Your task to perform on an android device: open app "Messages" (install if not already installed) Image 0: 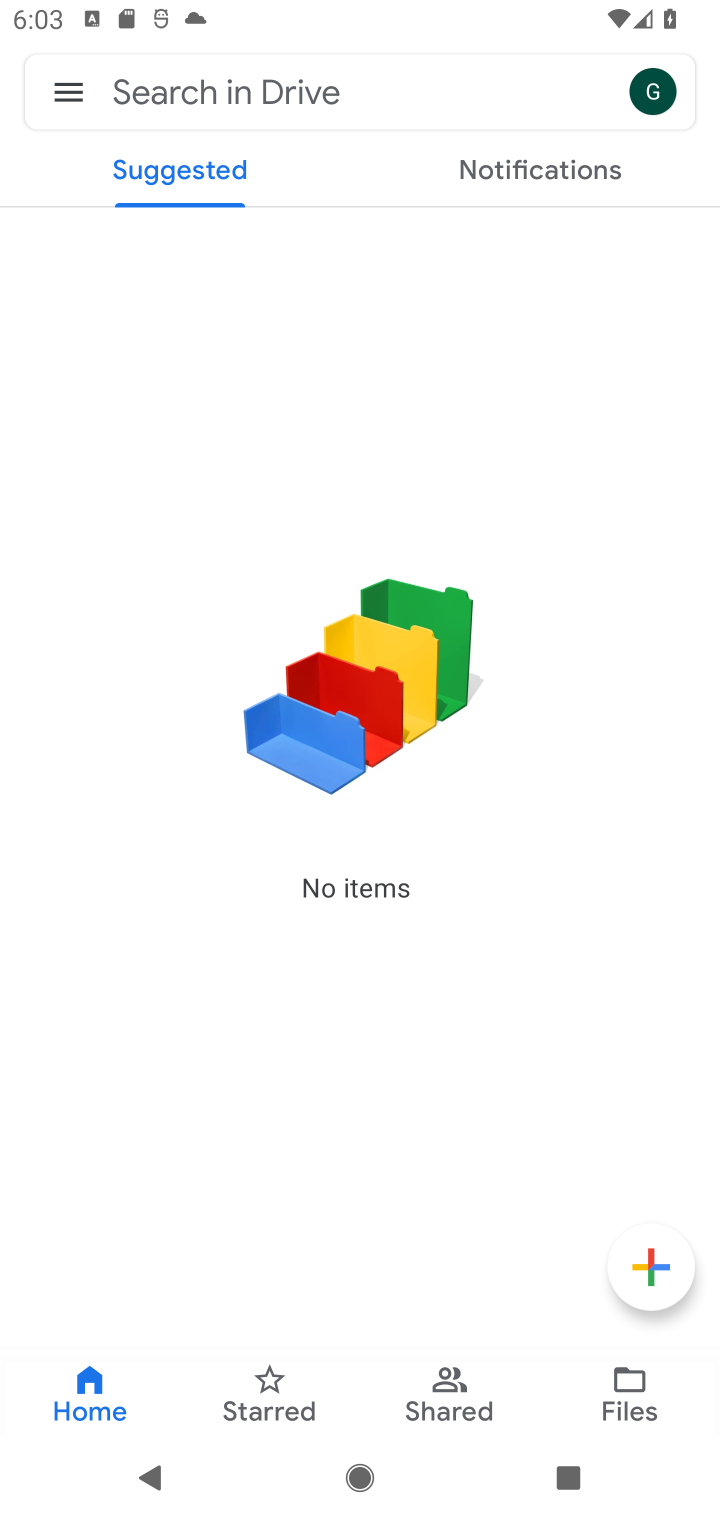
Step 0: press home button
Your task to perform on an android device: open app "Messages" (install if not already installed) Image 1: 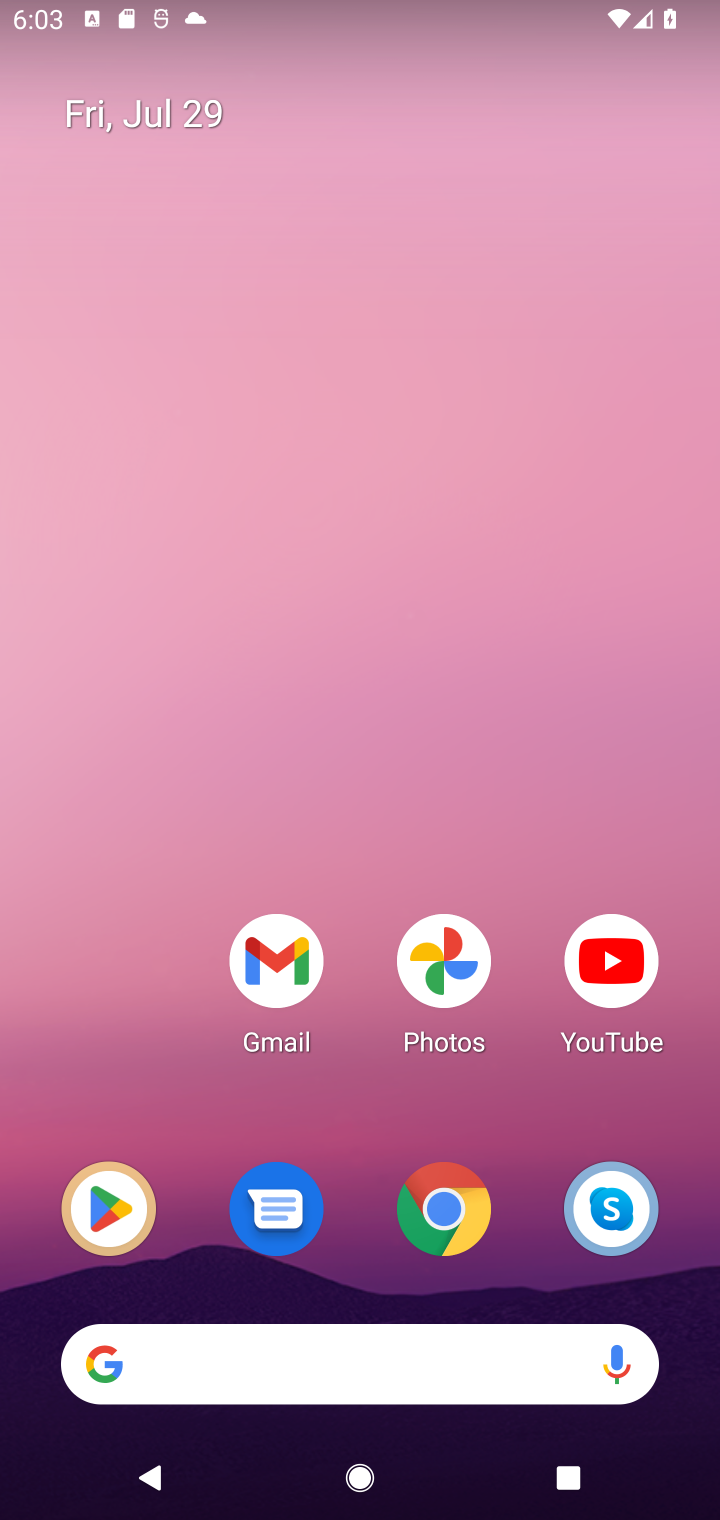
Step 1: click (106, 1209)
Your task to perform on an android device: open app "Messages" (install if not already installed) Image 2: 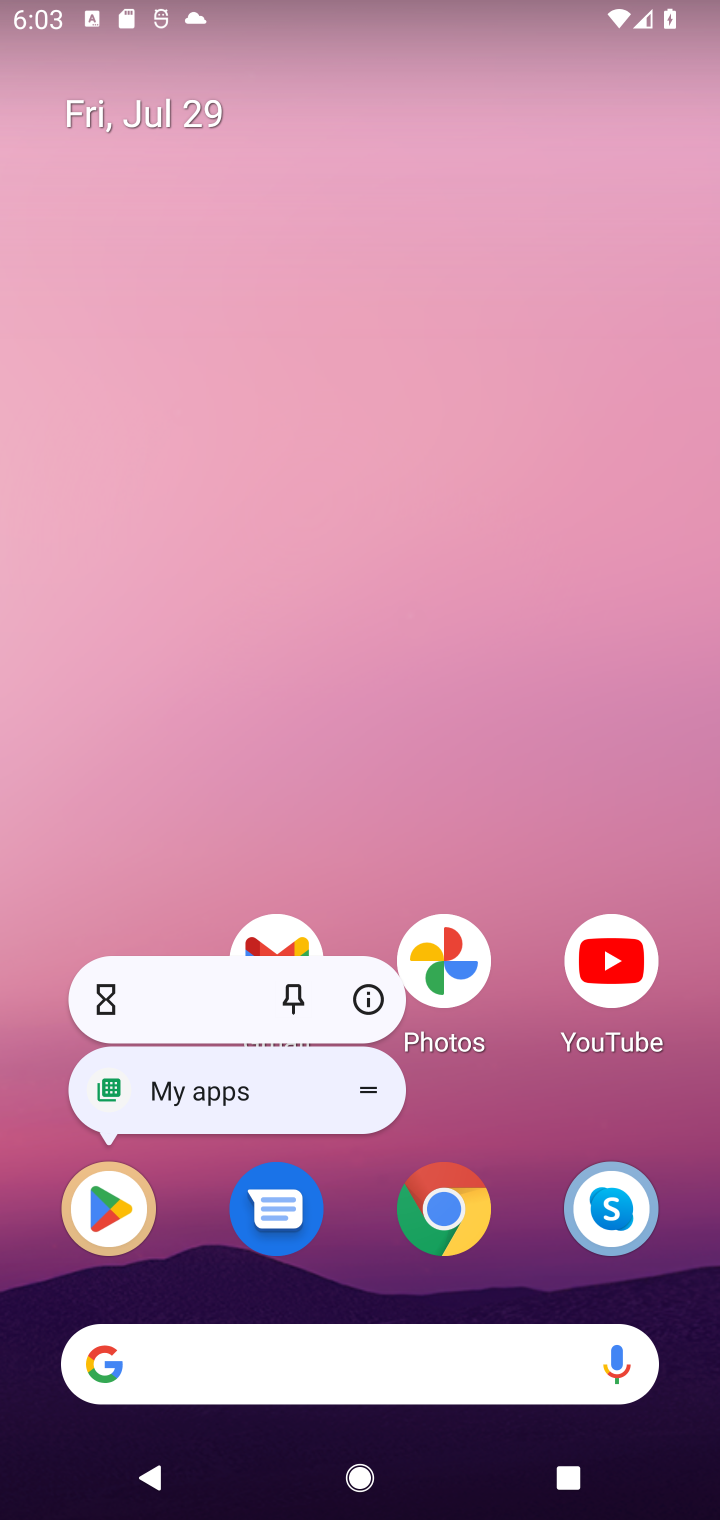
Step 2: click (110, 1214)
Your task to perform on an android device: open app "Messages" (install if not already installed) Image 3: 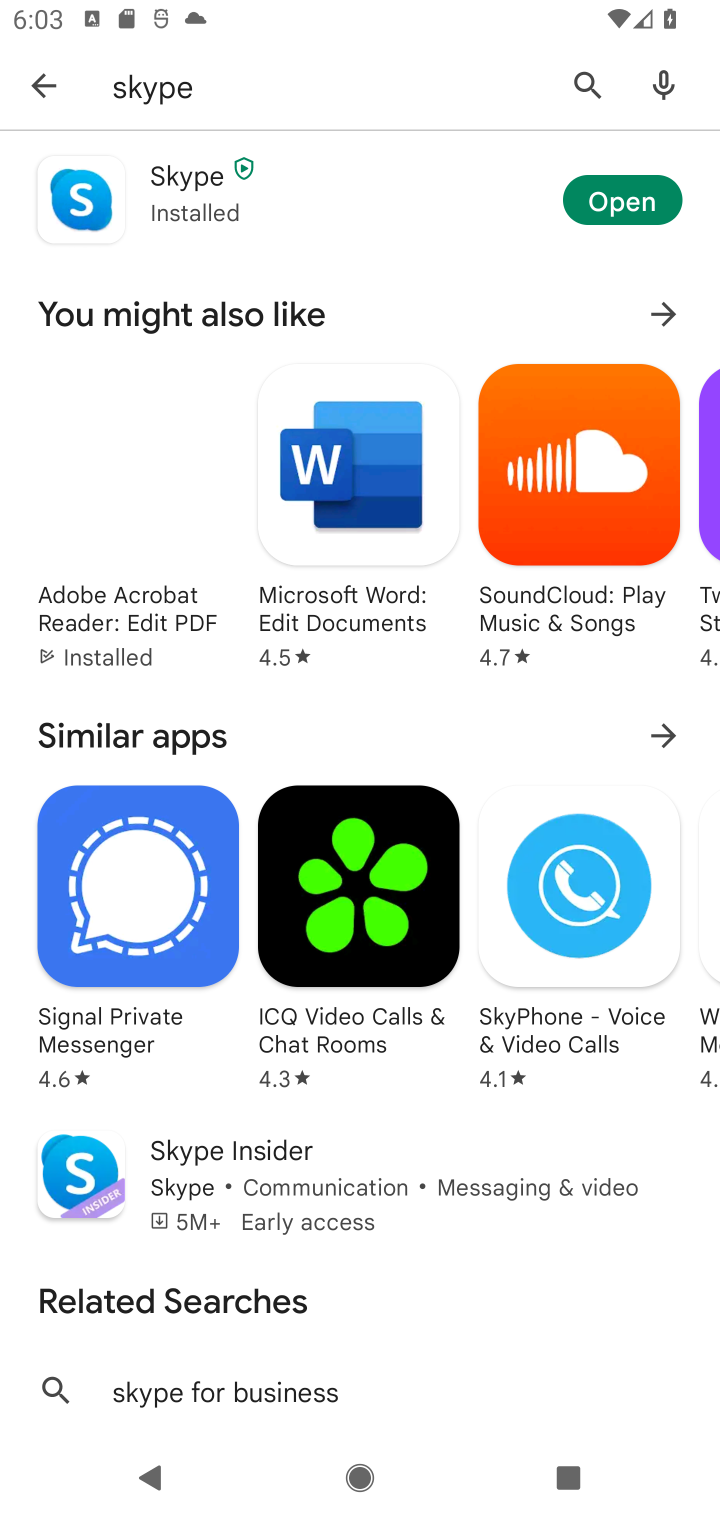
Step 3: click (582, 82)
Your task to perform on an android device: open app "Messages" (install if not already installed) Image 4: 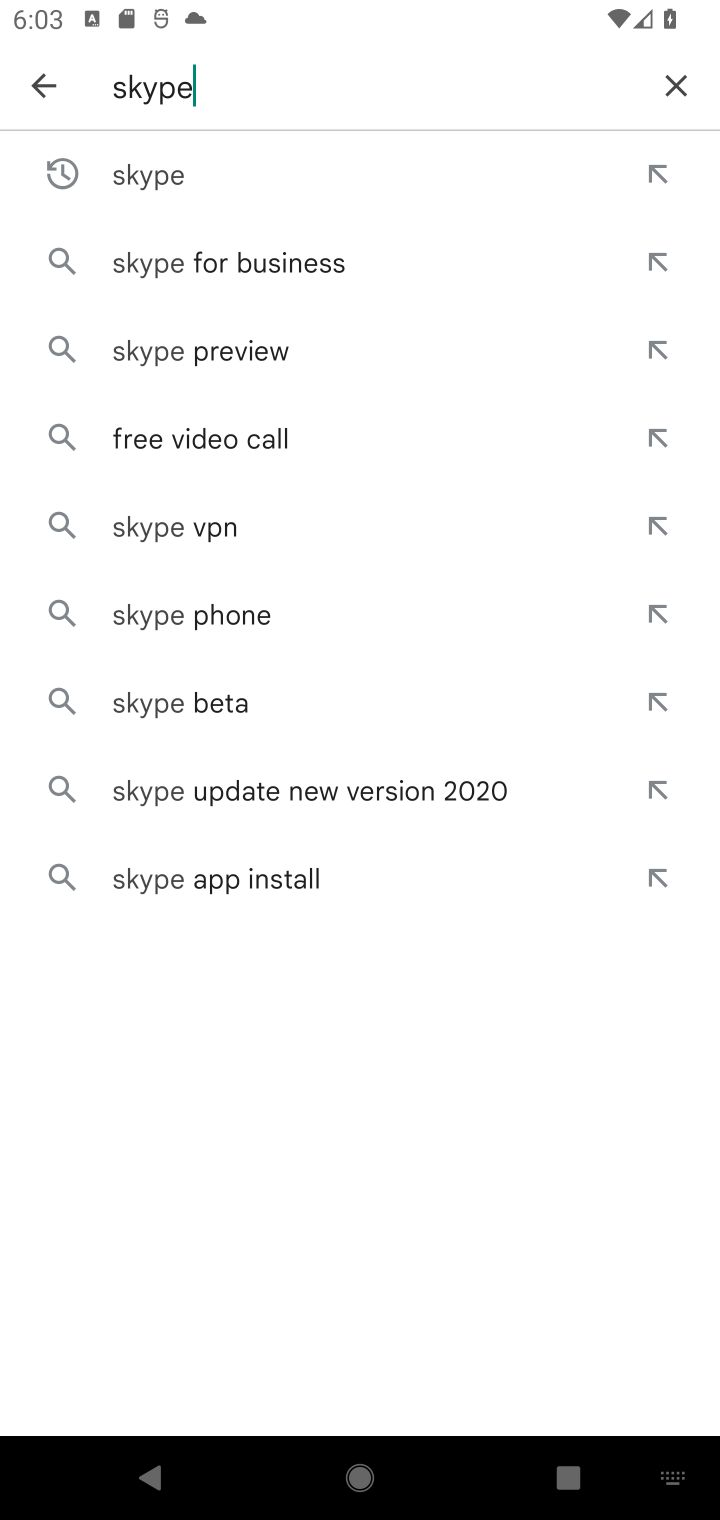
Step 4: click (686, 84)
Your task to perform on an android device: open app "Messages" (install if not already installed) Image 5: 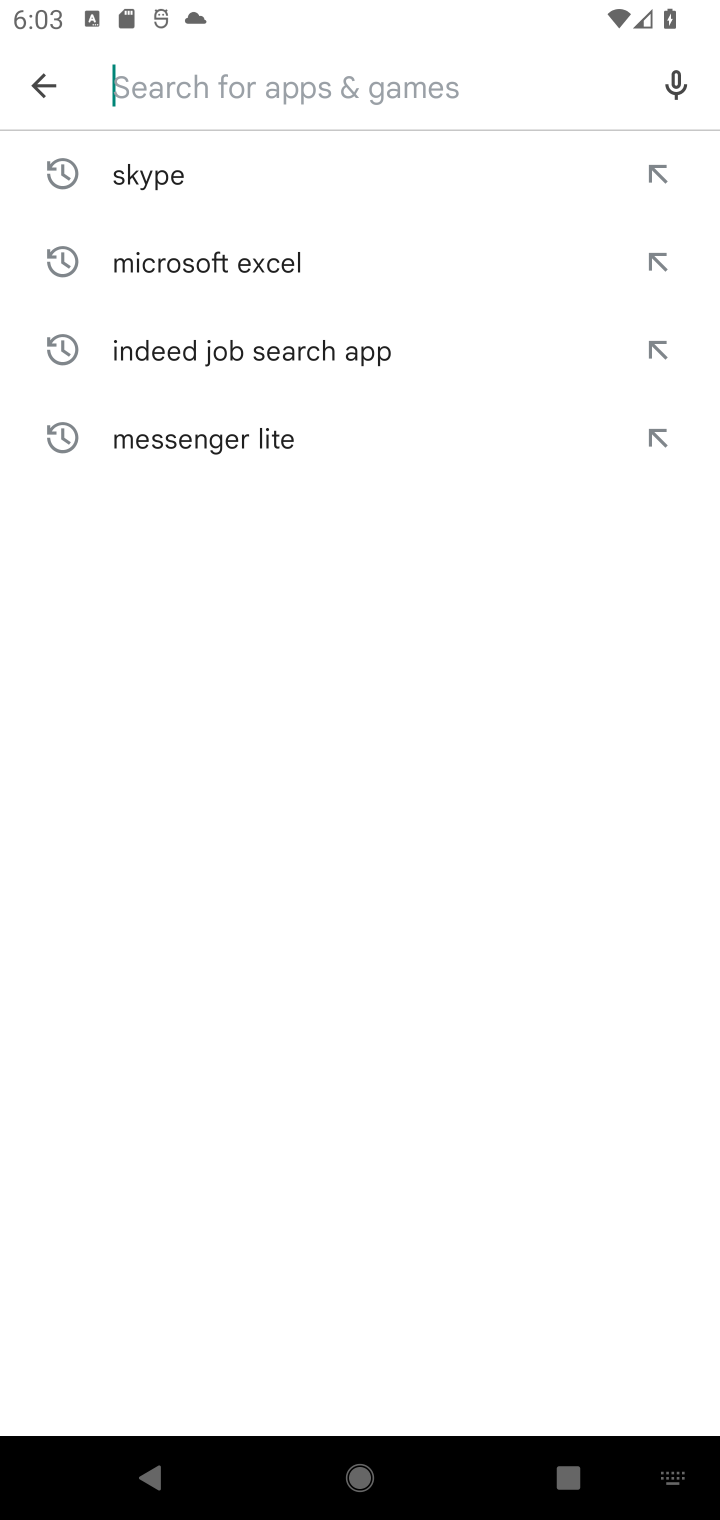
Step 5: type "Messages"
Your task to perform on an android device: open app "Messages" (install if not already installed) Image 6: 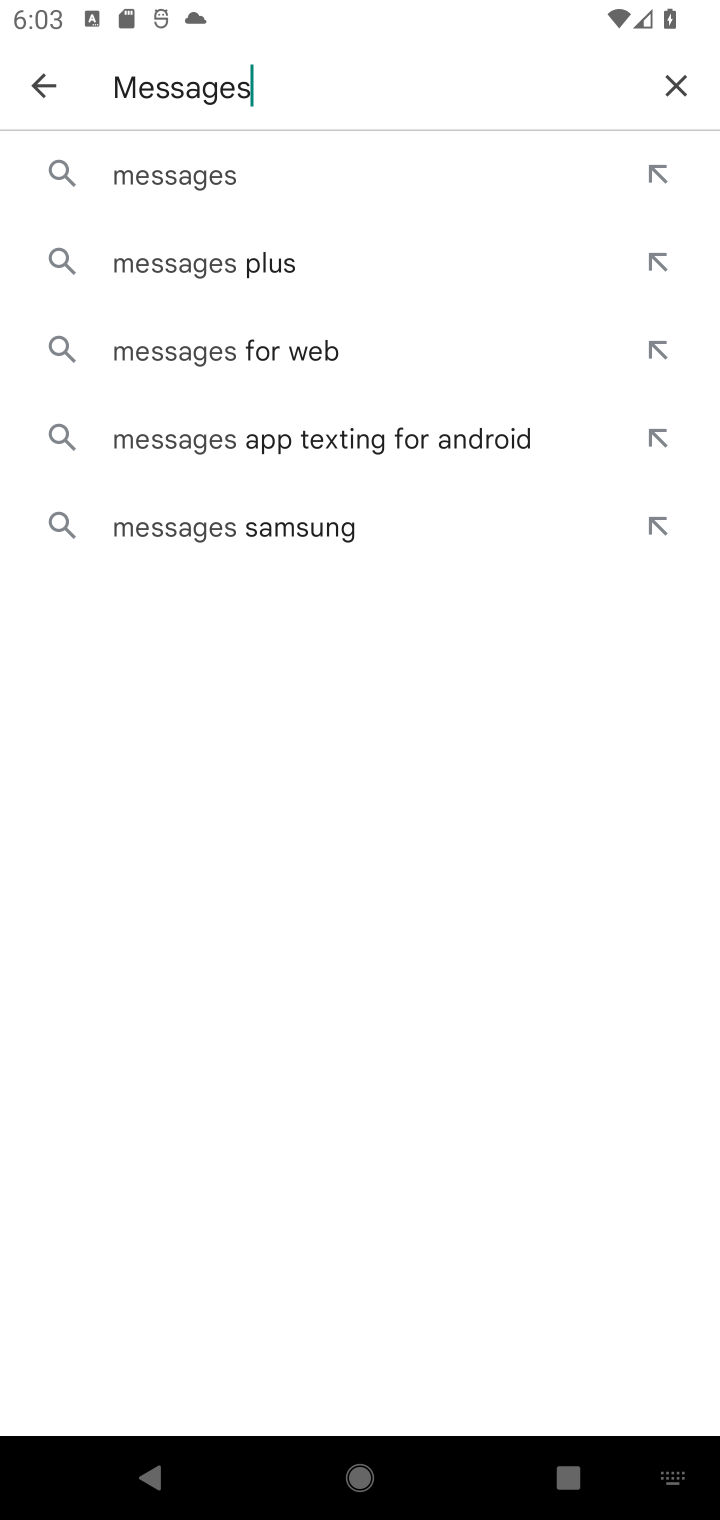
Step 6: click (208, 187)
Your task to perform on an android device: open app "Messages" (install if not already installed) Image 7: 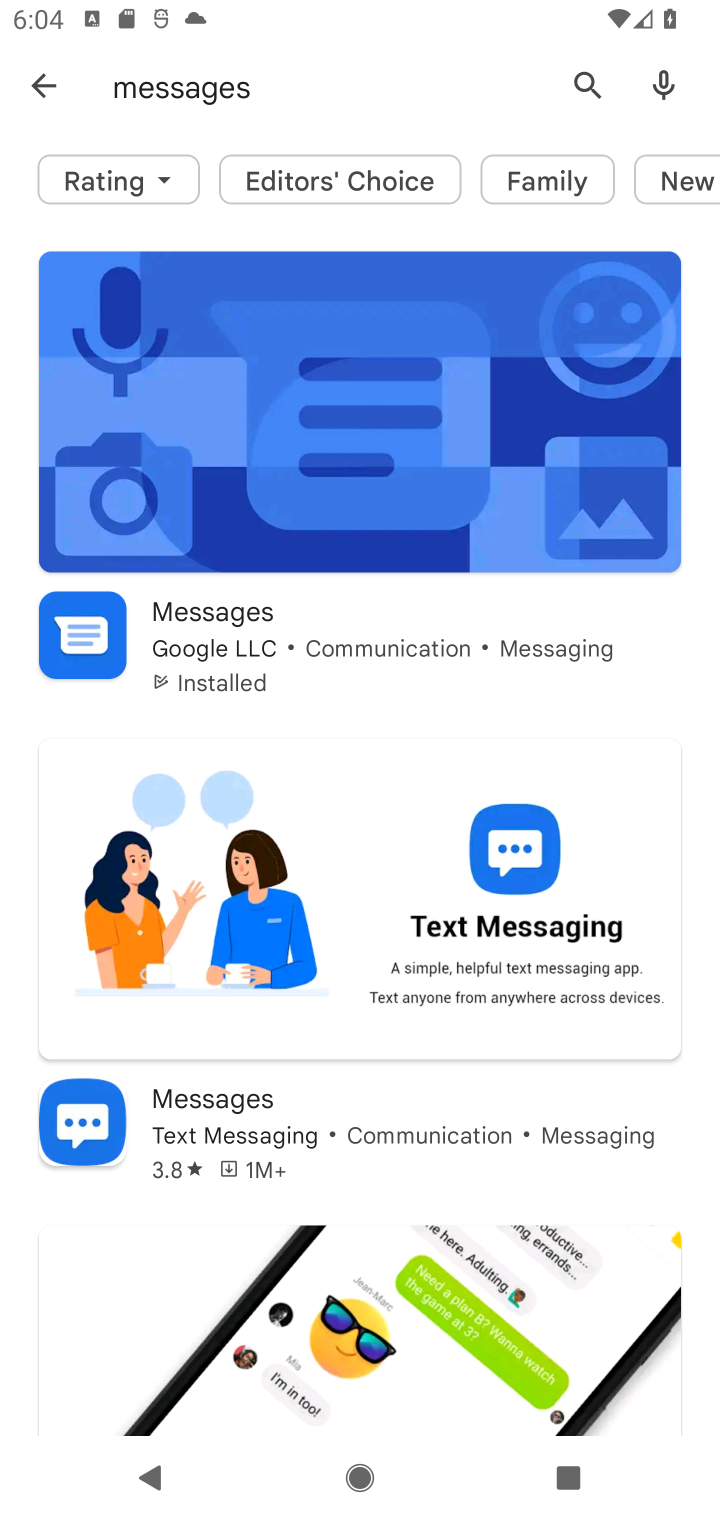
Step 7: drag from (269, 452) to (246, 635)
Your task to perform on an android device: open app "Messages" (install if not already installed) Image 8: 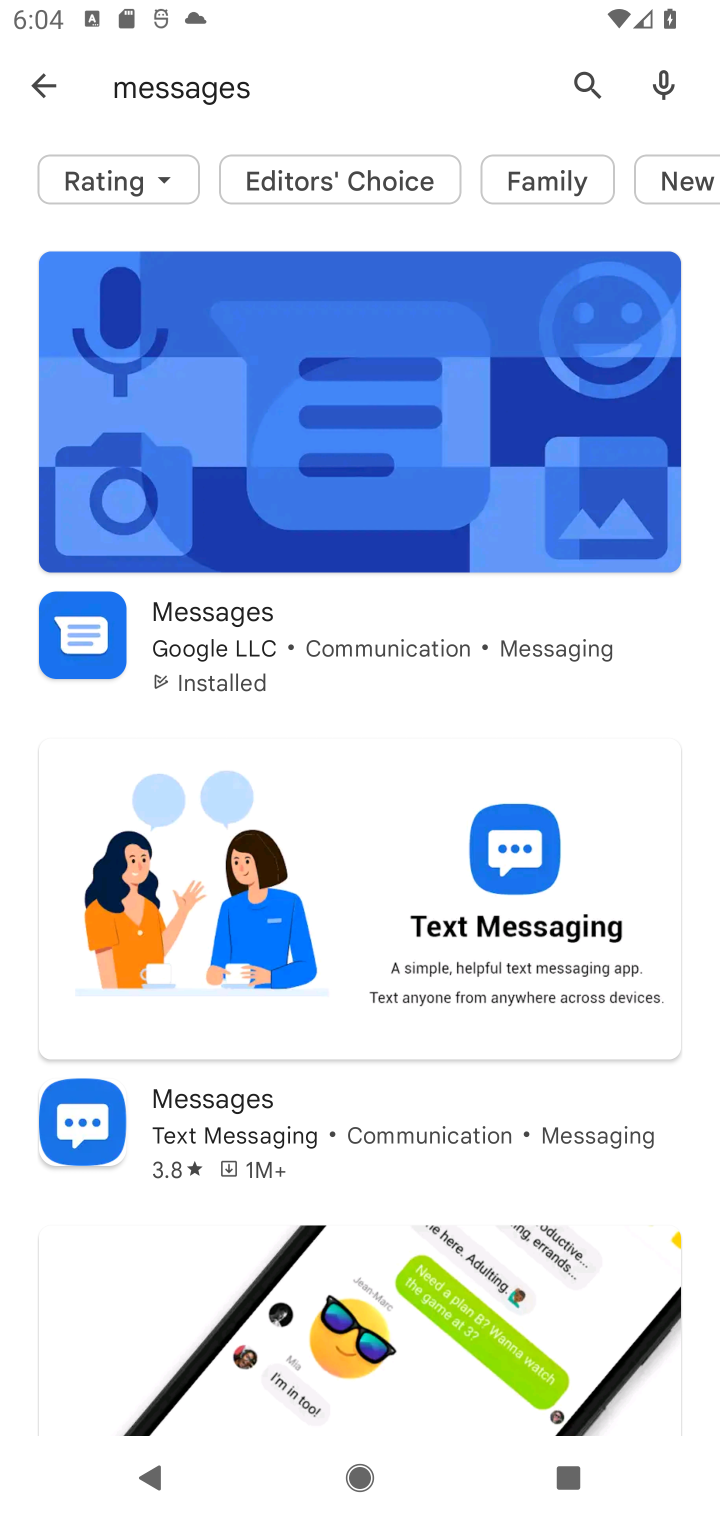
Step 8: click (96, 633)
Your task to perform on an android device: open app "Messages" (install if not already installed) Image 9: 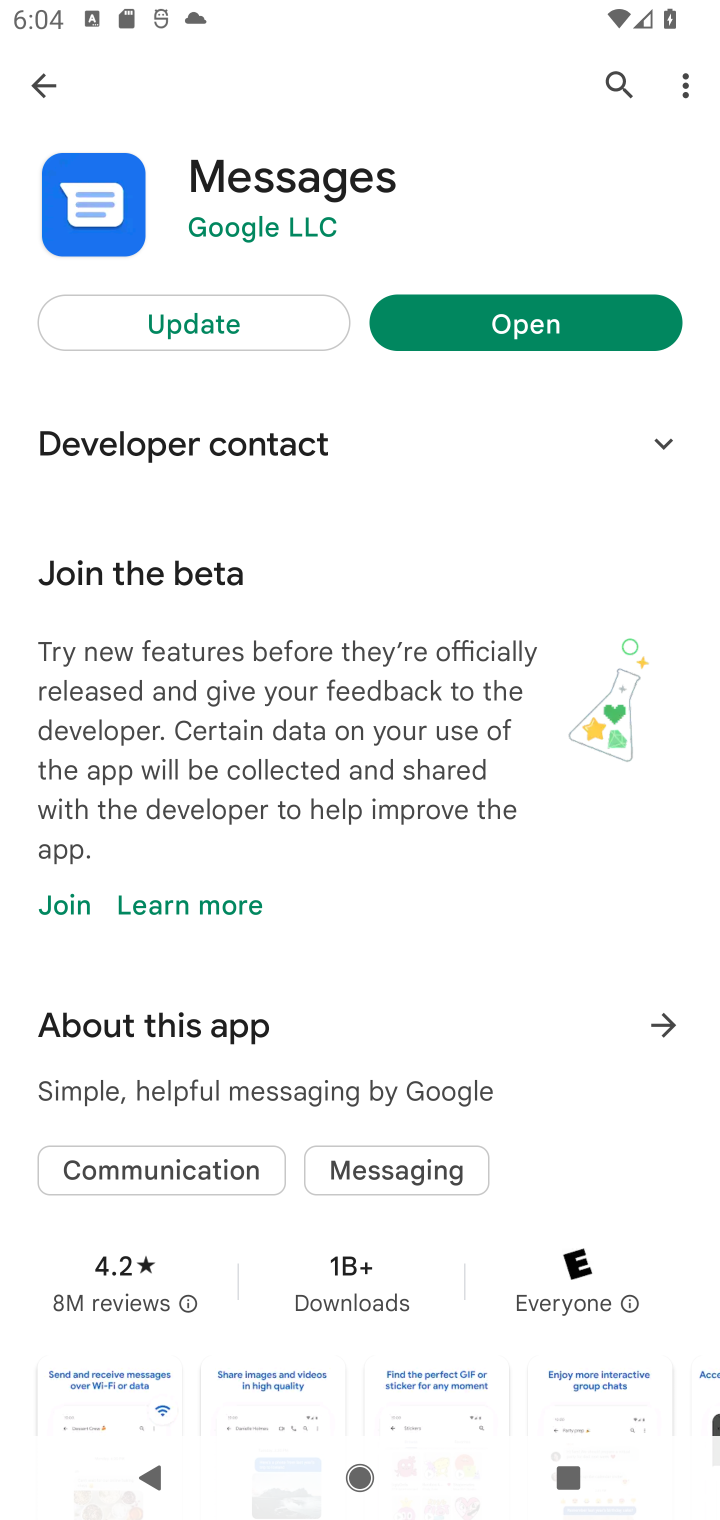
Step 9: click (488, 323)
Your task to perform on an android device: open app "Messages" (install if not already installed) Image 10: 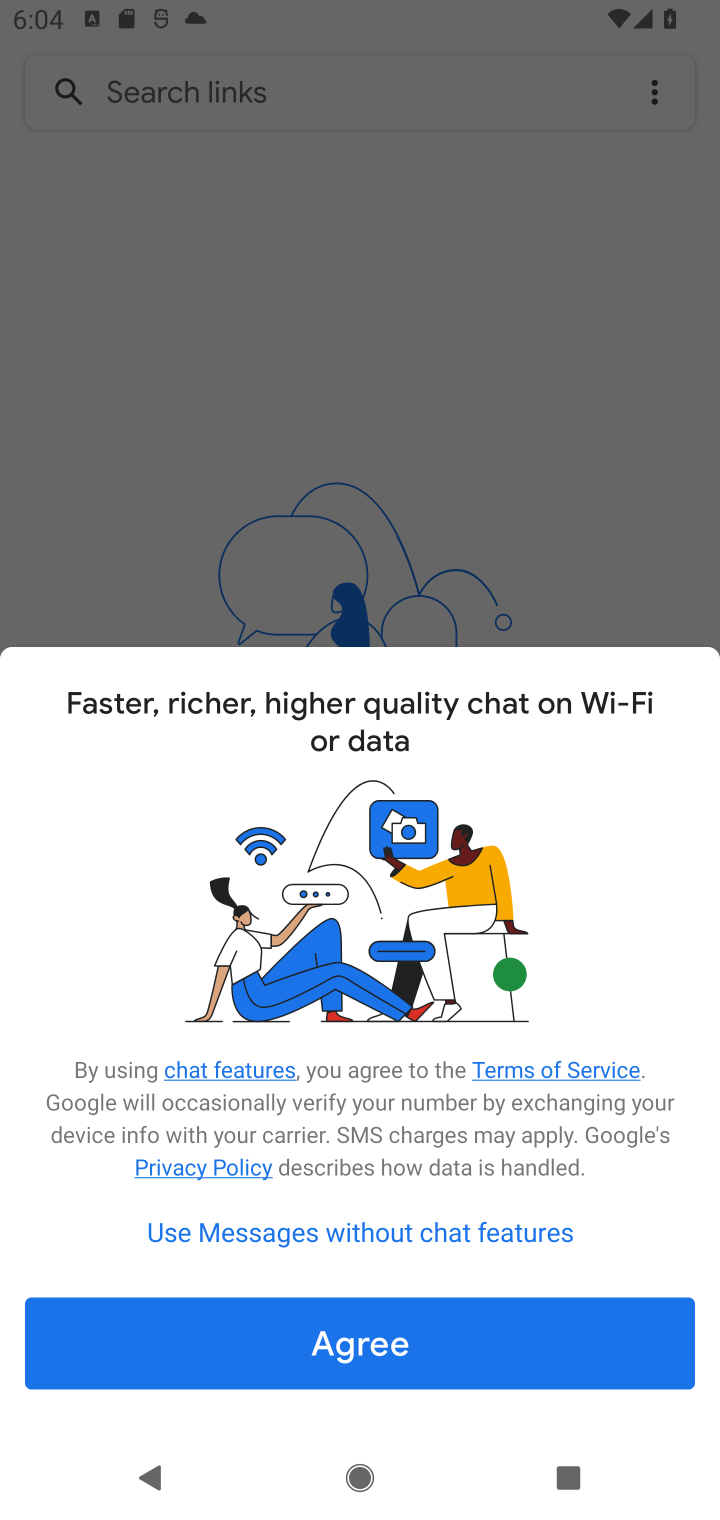
Step 10: task complete